Your task to perform on an android device: Open sound settings Image 0: 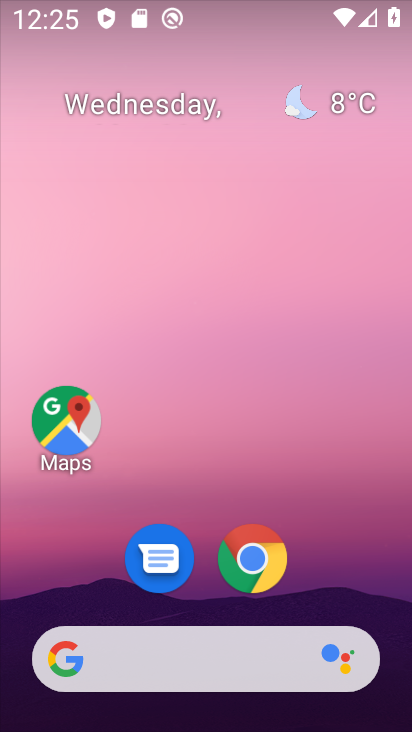
Step 0: drag from (337, 555) to (274, 21)
Your task to perform on an android device: Open sound settings Image 1: 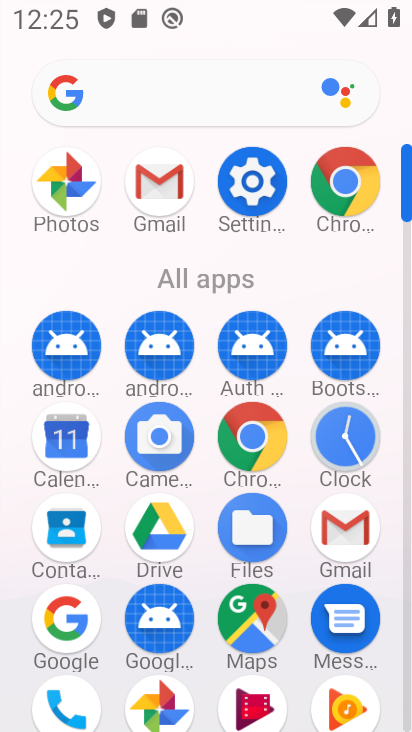
Step 1: drag from (16, 590) to (14, 242)
Your task to perform on an android device: Open sound settings Image 2: 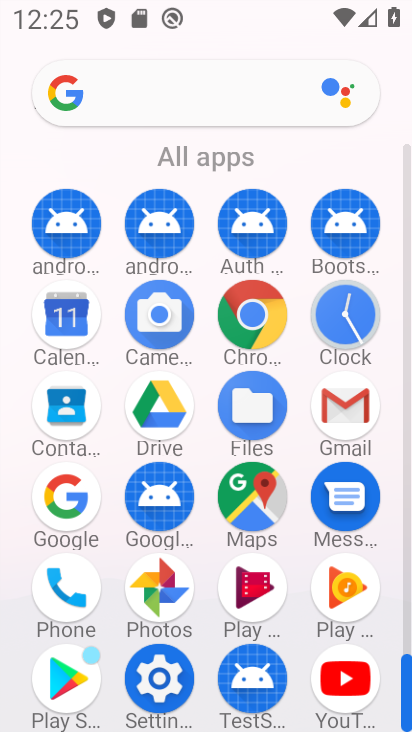
Step 2: click (159, 674)
Your task to perform on an android device: Open sound settings Image 3: 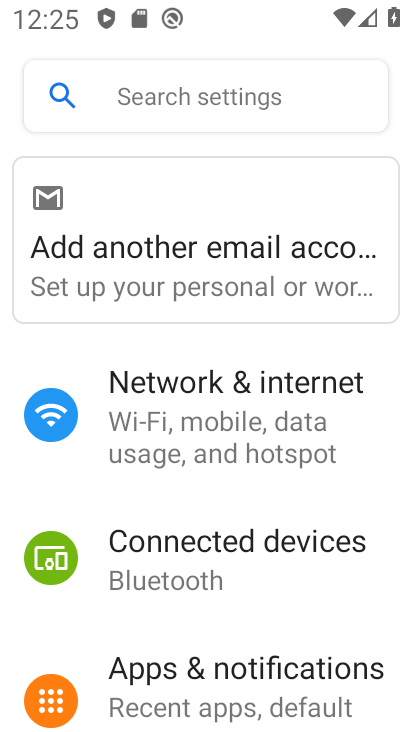
Step 3: drag from (272, 562) to (311, 118)
Your task to perform on an android device: Open sound settings Image 4: 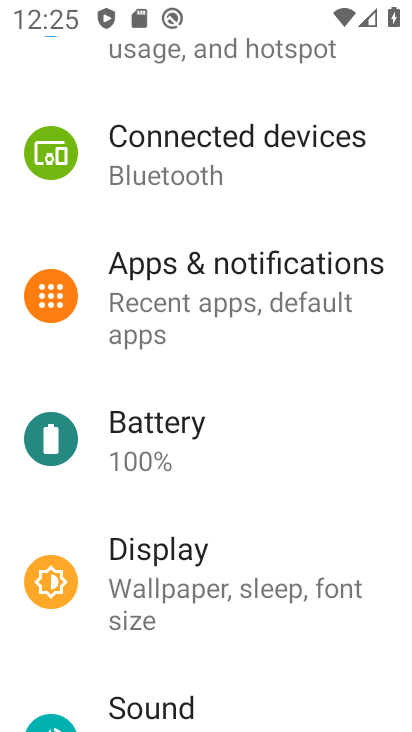
Step 4: drag from (288, 489) to (286, 163)
Your task to perform on an android device: Open sound settings Image 5: 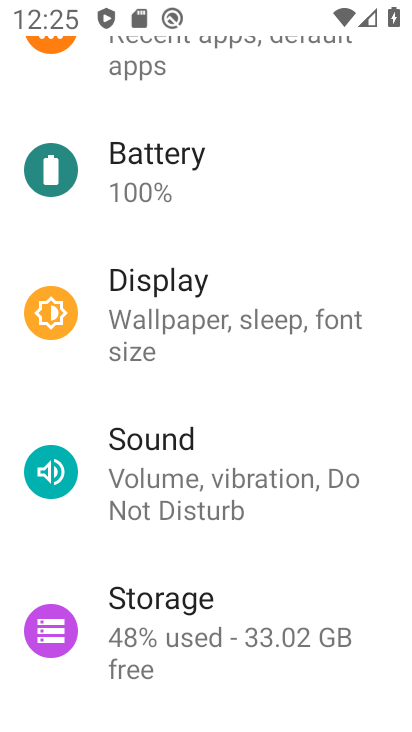
Step 5: click (197, 436)
Your task to perform on an android device: Open sound settings Image 6: 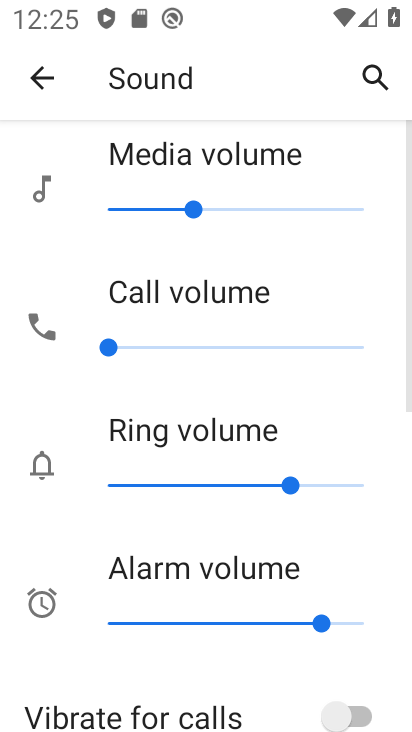
Step 6: task complete